Your task to perform on an android device: Go to Google Image 0: 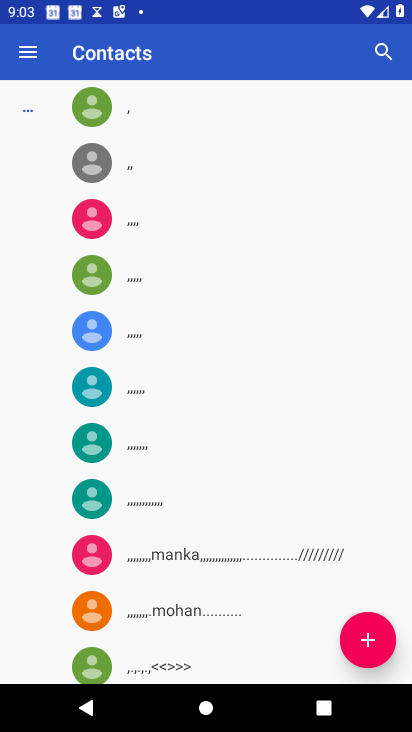
Step 0: press home button
Your task to perform on an android device: Go to Google Image 1: 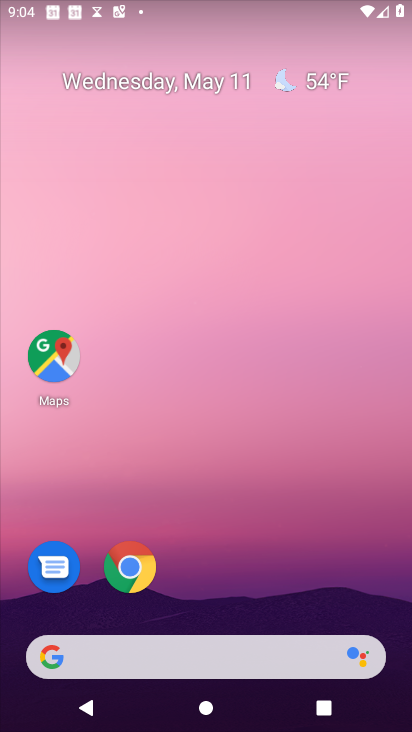
Step 1: click (235, 583)
Your task to perform on an android device: Go to Google Image 2: 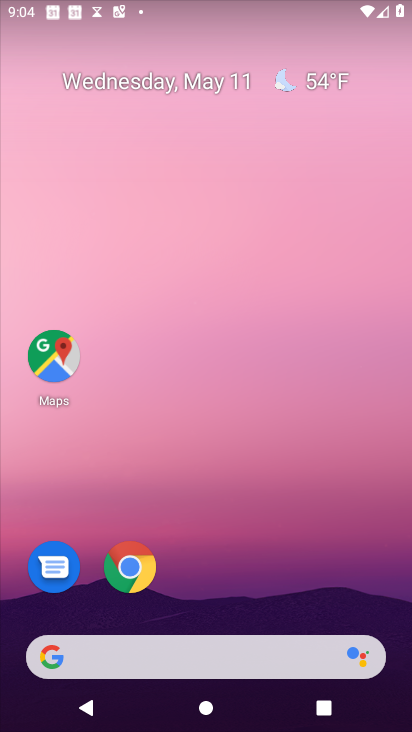
Step 2: click (212, 653)
Your task to perform on an android device: Go to Google Image 3: 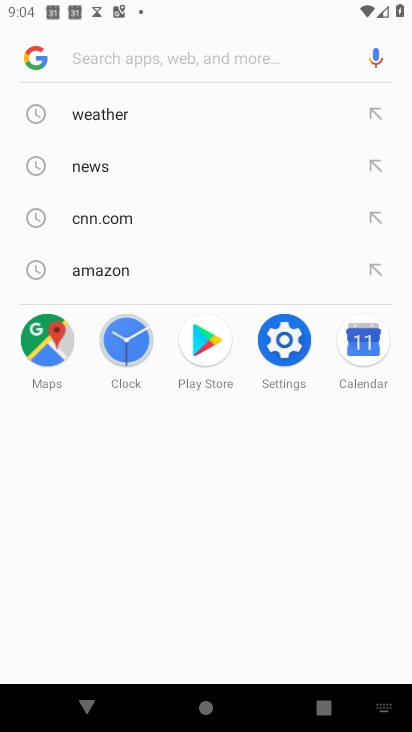
Step 3: click (41, 66)
Your task to perform on an android device: Go to Google Image 4: 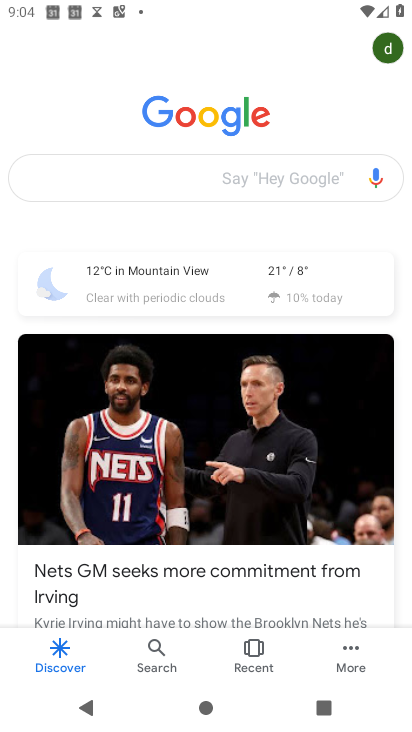
Step 4: task complete